Your task to perform on an android device: turn on airplane mode Image 0: 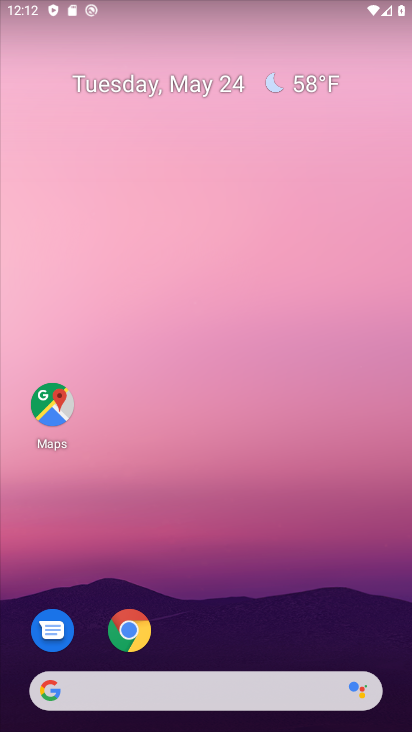
Step 0: drag from (258, 603) to (263, 200)
Your task to perform on an android device: turn on airplane mode Image 1: 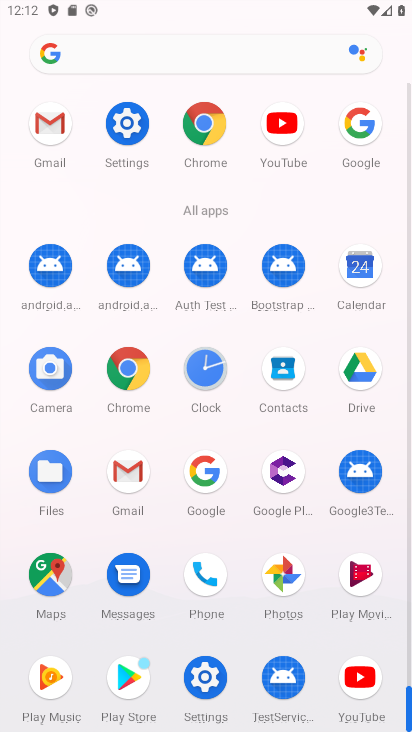
Step 1: click (205, 679)
Your task to perform on an android device: turn on airplane mode Image 2: 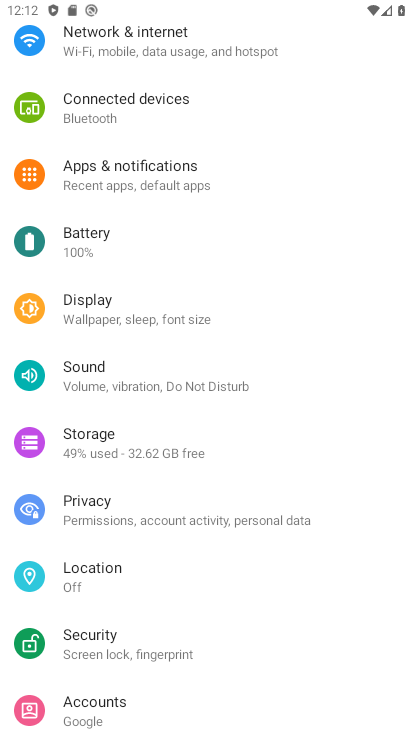
Step 2: click (164, 50)
Your task to perform on an android device: turn on airplane mode Image 3: 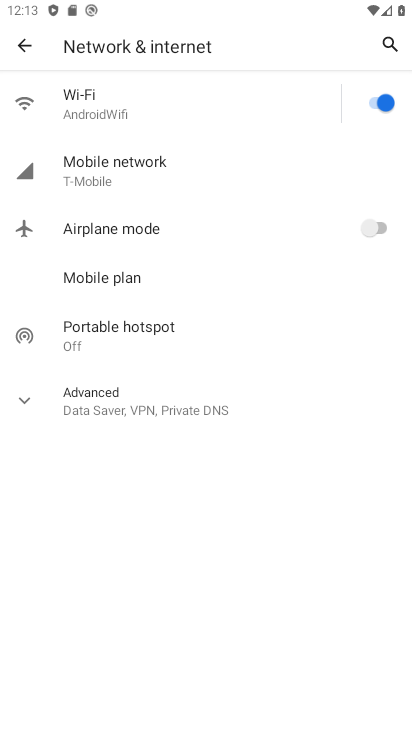
Step 3: click (368, 229)
Your task to perform on an android device: turn on airplane mode Image 4: 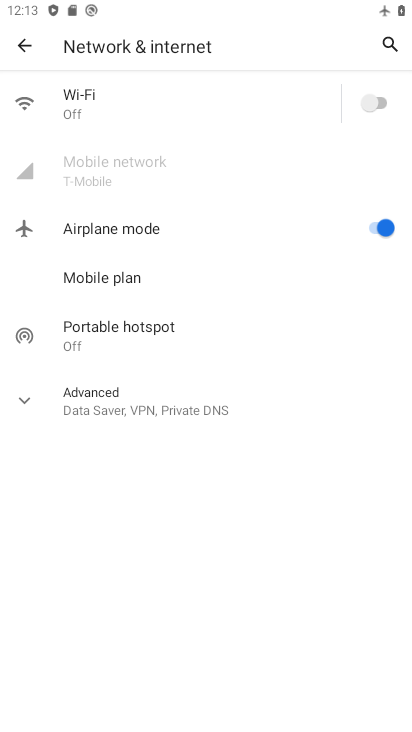
Step 4: task complete